Your task to perform on an android device: What's on the menu at Denny's? Image 0: 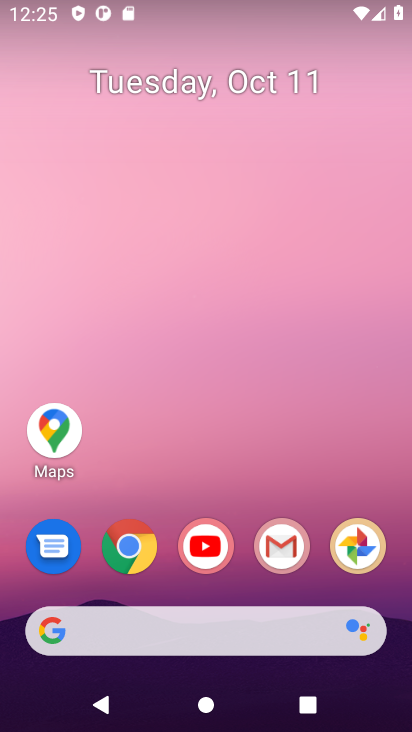
Step 0: click (138, 549)
Your task to perform on an android device: What's on the menu at Denny's? Image 1: 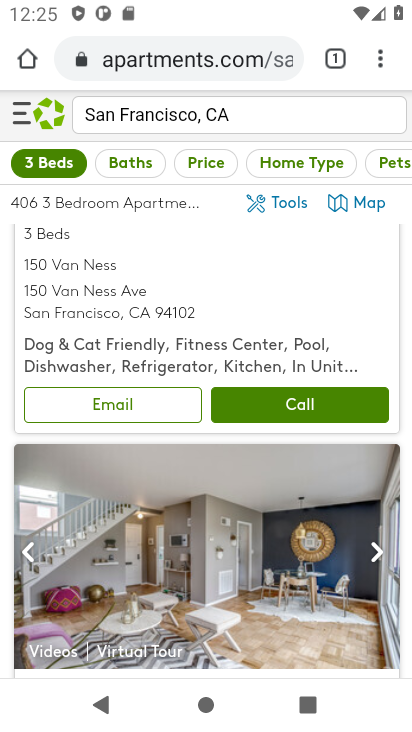
Step 1: click (235, 56)
Your task to perform on an android device: What's on the menu at Denny's? Image 2: 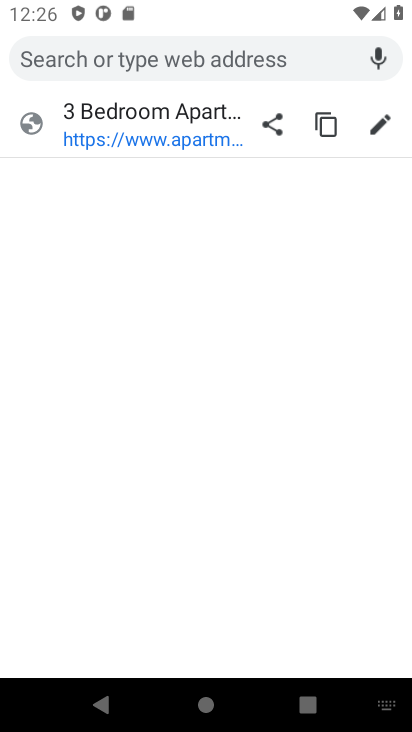
Step 2: type "Denny's menu"
Your task to perform on an android device: What's on the menu at Denny's? Image 3: 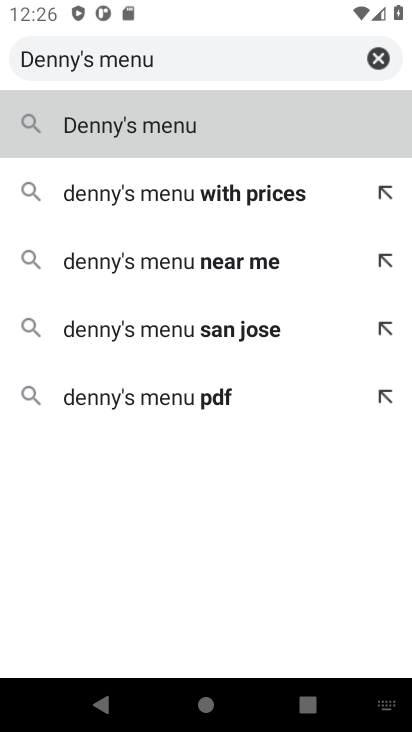
Step 3: press enter
Your task to perform on an android device: What's on the menu at Denny's? Image 4: 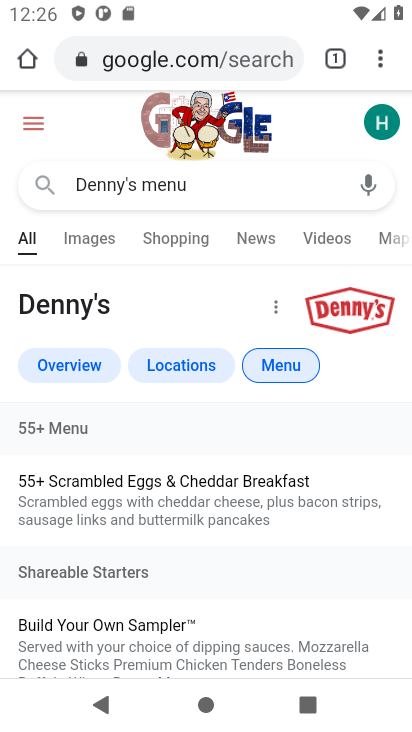
Step 4: drag from (183, 539) to (184, 253)
Your task to perform on an android device: What's on the menu at Denny's? Image 5: 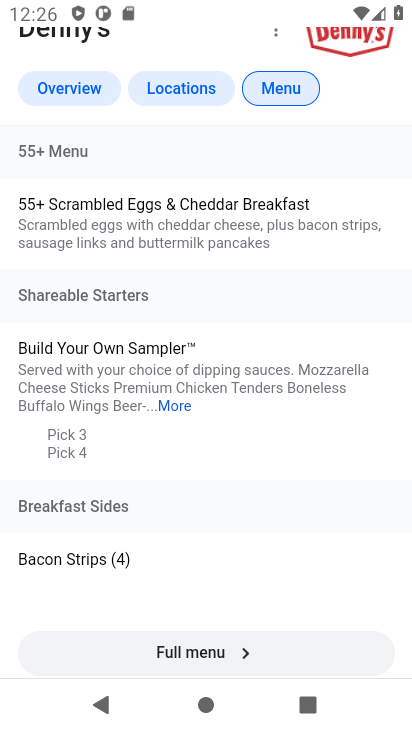
Step 5: click (220, 657)
Your task to perform on an android device: What's on the menu at Denny's? Image 6: 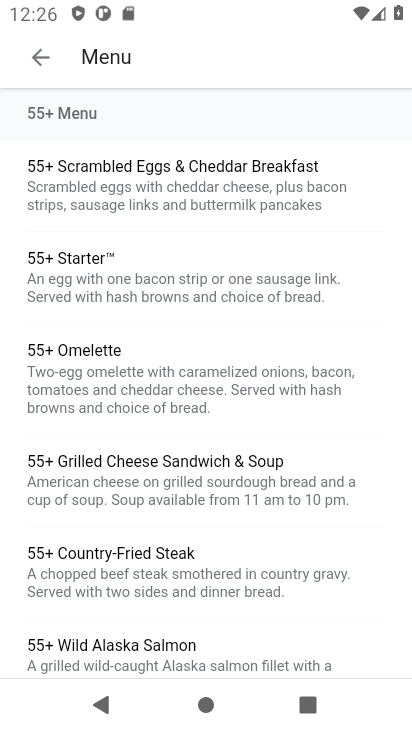
Step 6: task complete